Your task to perform on an android device: delete the emails in spam in the gmail app Image 0: 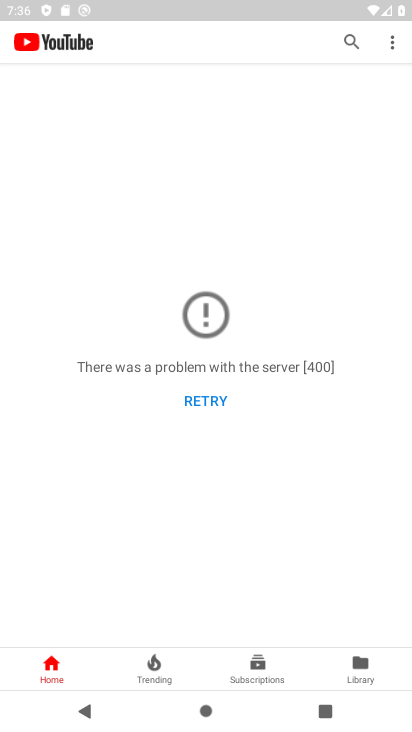
Step 0: press home button
Your task to perform on an android device: delete the emails in spam in the gmail app Image 1: 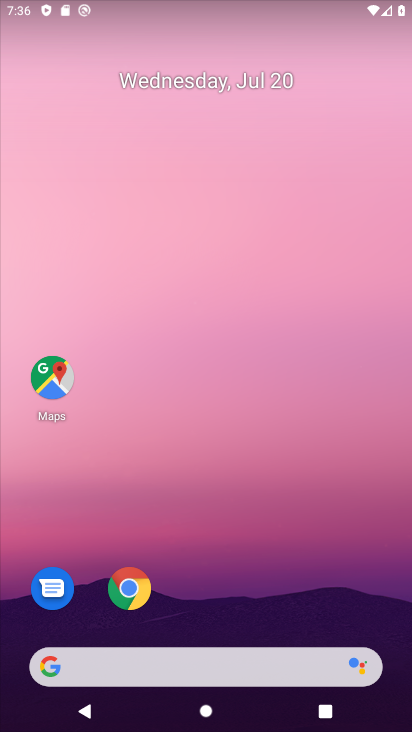
Step 1: drag from (286, 289) to (286, 37)
Your task to perform on an android device: delete the emails in spam in the gmail app Image 2: 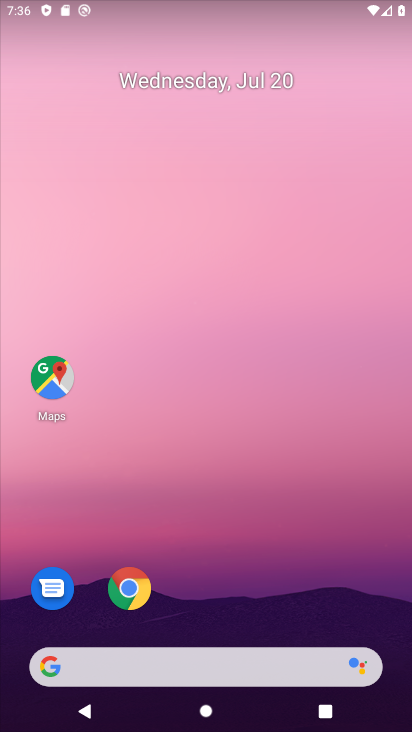
Step 2: drag from (277, 541) to (373, 51)
Your task to perform on an android device: delete the emails in spam in the gmail app Image 3: 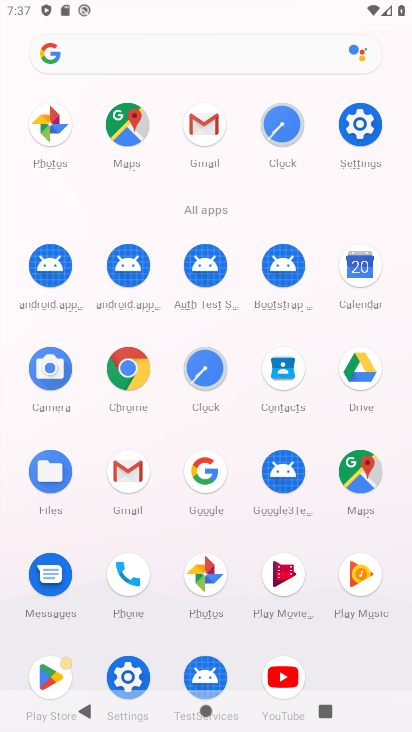
Step 3: click (130, 471)
Your task to perform on an android device: delete the emails in spam in the gmail app Image 4: 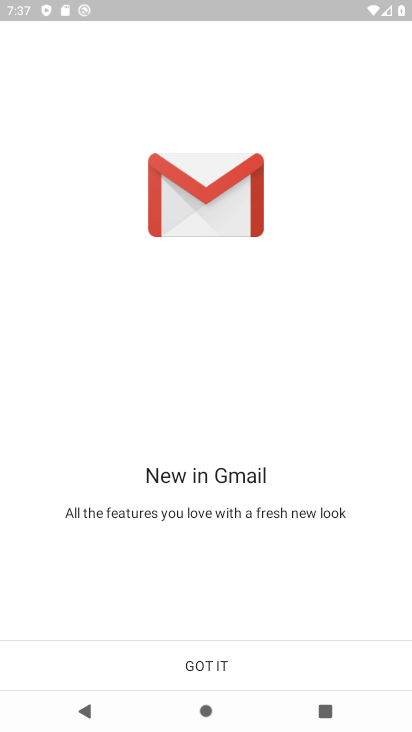
Step 4: click (163, 666)
Your task to perform on an android device: delete the emails in spam in the gmail app Image 5: 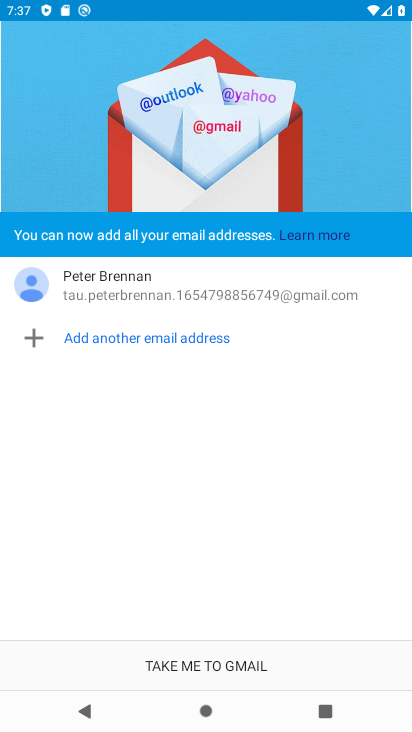
Step 5: click (163, 666)
Your task to perform on an android device: delete the emails in spam in the gmail app Image 6: 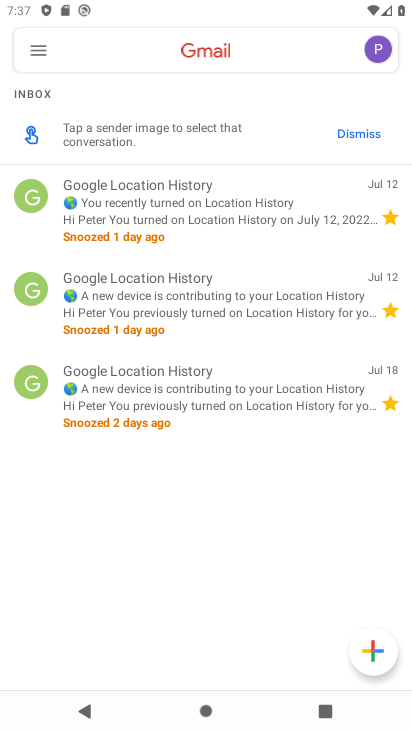
Step 6: click (31, 54)
Your task to perform on an android device: delete the emails in spam in the gmail app Image 7: 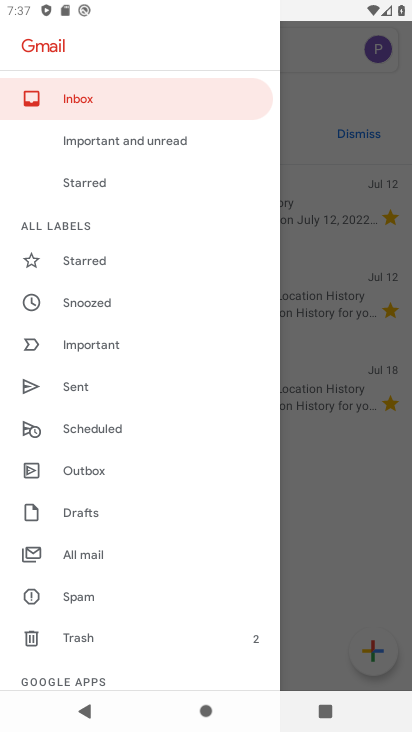
Step 7: click (78, 591)
Your task to perform on an android device: delete the emails in spam in the gmail app Image 8: 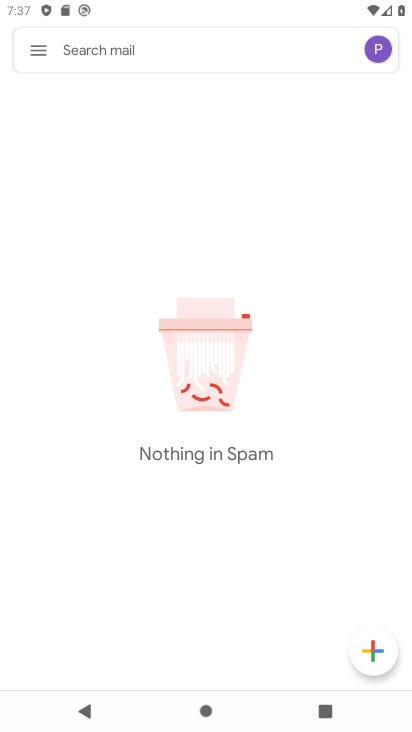
Step 8: task complete